Your task to perform on an android device: Open Maps and search for coffee Image 0: 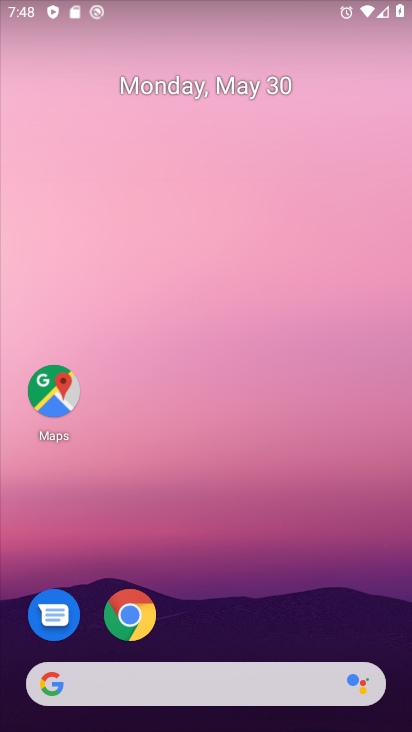
Step 0: drag from (258, 509) to (210, 73)
Your task to perform on an android device: Open Maps and search for coffee Image 1: 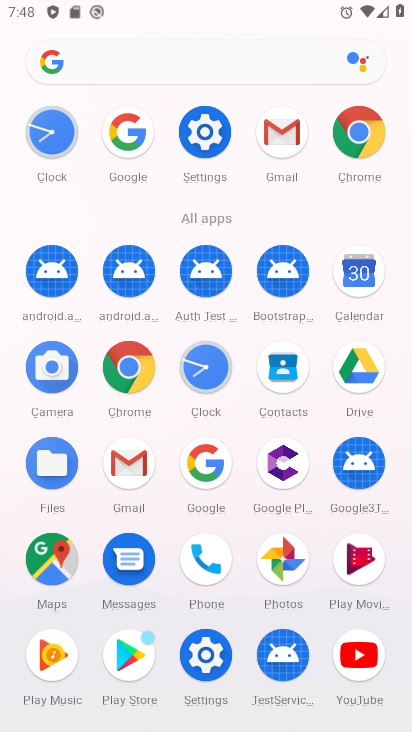
Step 1: click (70, 576)
Your task to perform on an android device: Open Maps and search for coffee Image 2: 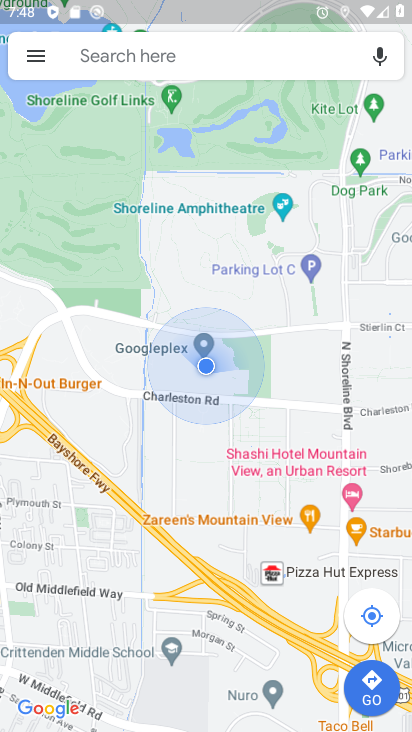
Step 2: click (242, 39)
Your task to perform on an android device: Open Maps and search for coffee Image 3: 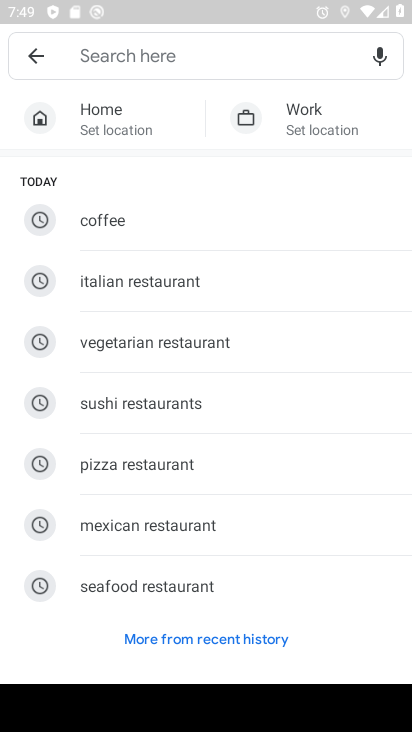
Step 3: type "coffee"
Your task to perform on an android device: Open Maps and search for coffee Image 4: 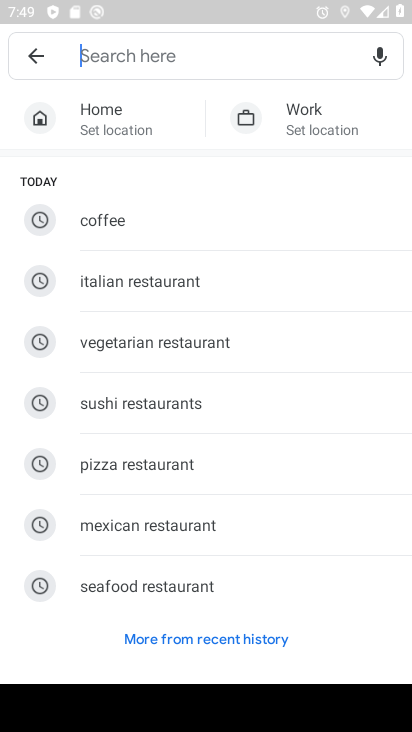
Step 4: click (104, 214)
Your task to perform on an android device: Open Maps and search for coffee Image 5: 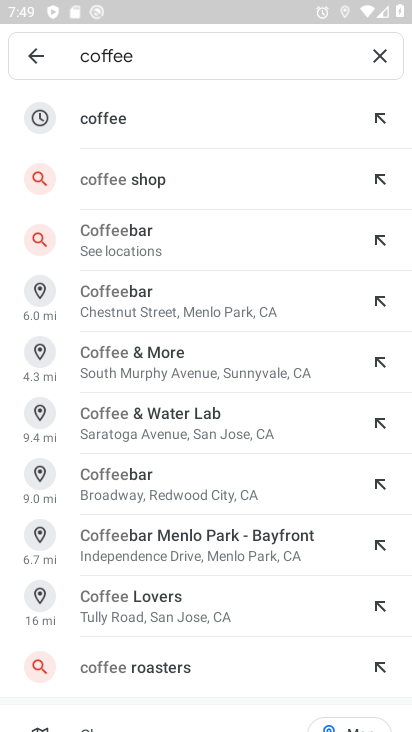
Step 5: click (132, 120)
Your task to perform on an android device: Open Maps and search for coffee Image 6: 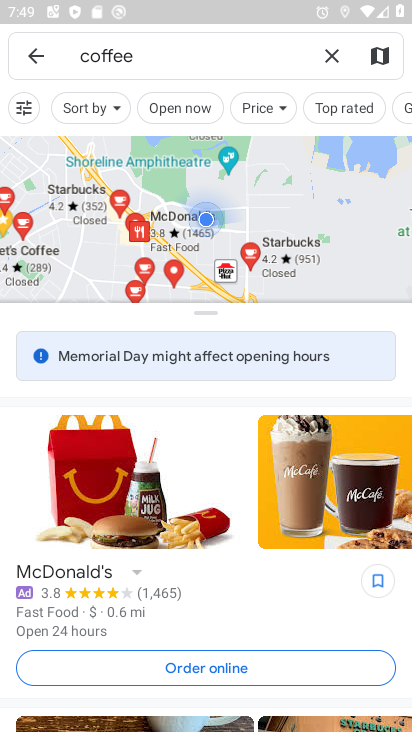
Step 6: task complete